Your task to perform on an android device: refresh tabs in the chrome app Image 0: 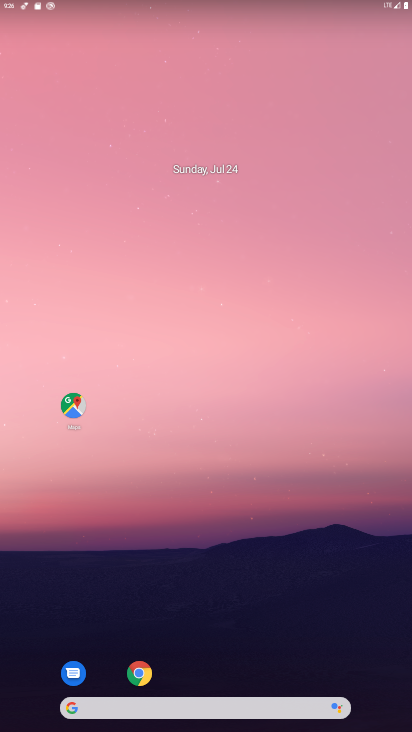
Step 0: click (145, 667)
Your task to perform on an android device: refresh tabs in the chrome app Image 1: 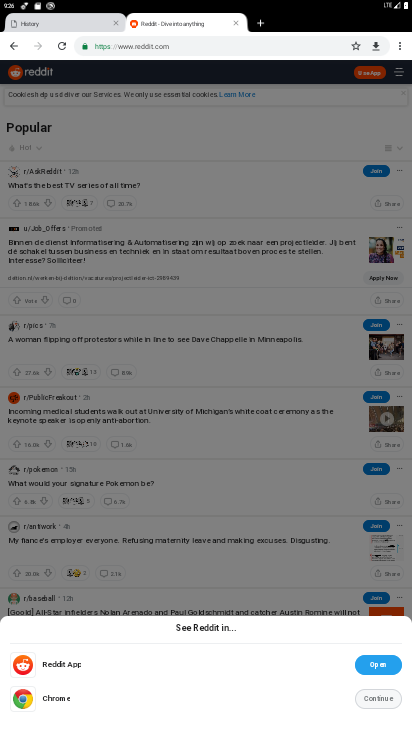
Step 1: click (57, 50)
Your task to perform on an android device: refresh tabs in the chrome app Image 2: 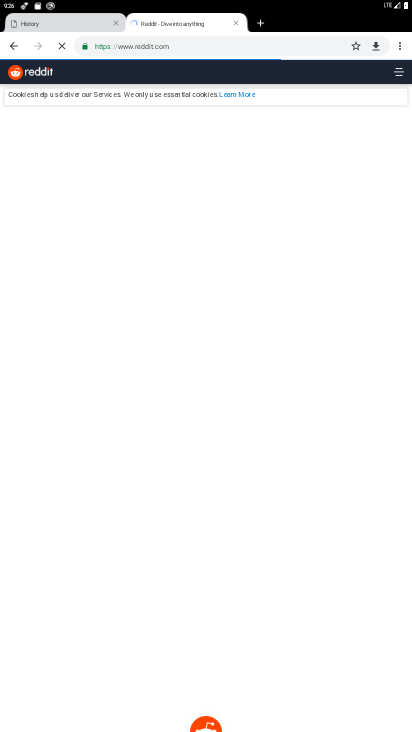
Step 2: task complete